Your task to perform on an android device: Show me popular games on the Play Store Image 0: 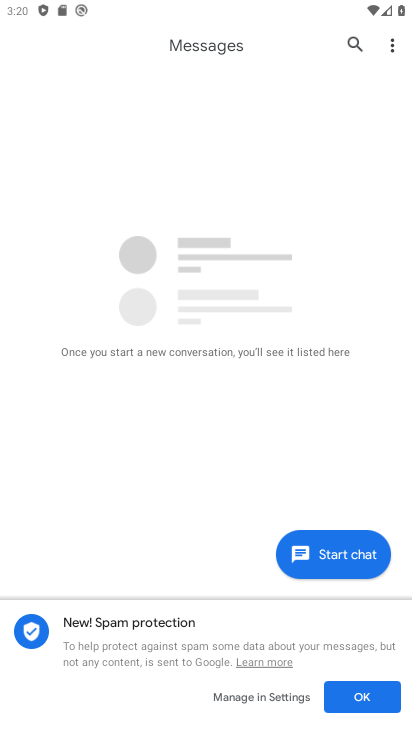
Step 0: press home button
Your task to perform on an android device: Show me popular games on the Play Store Image 1: 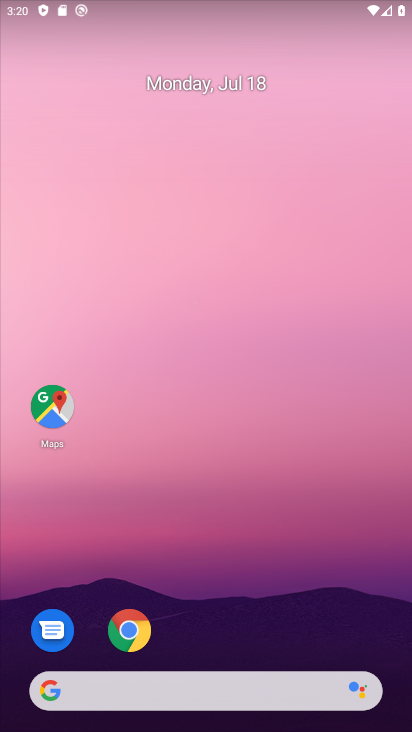
Step 1: drag from (238, 660) to (253, 172)
Your task to perform on an android device: Show me popular games on the Play Store Image 2: 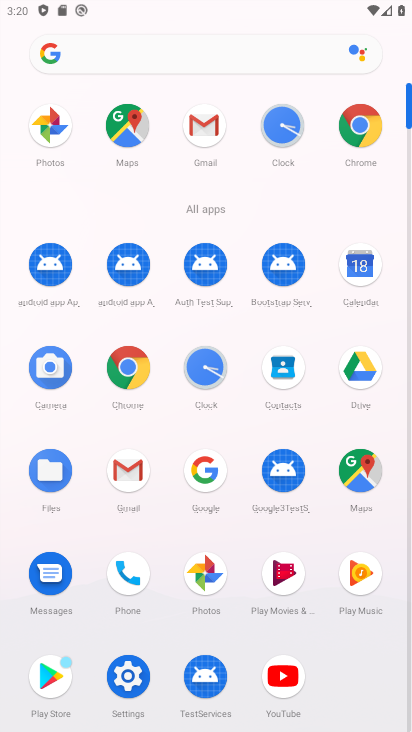
Step 2: click (58, 680)
Your task to perform on an android device: Show me popular games on the Play Store Image 3: 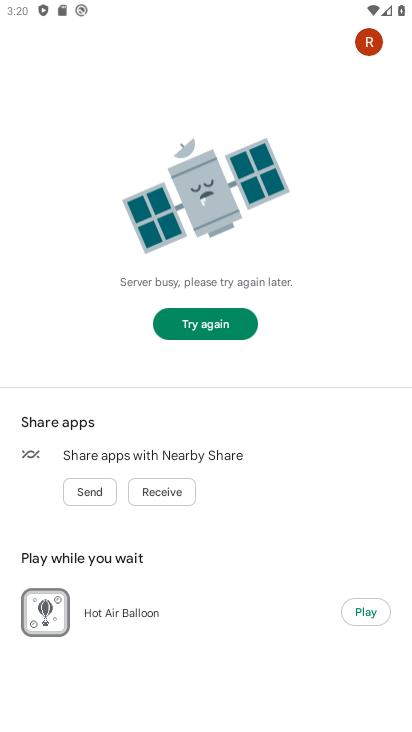
Step 3: task complete